Your task to perform on an android device: set an alarm Image 0: 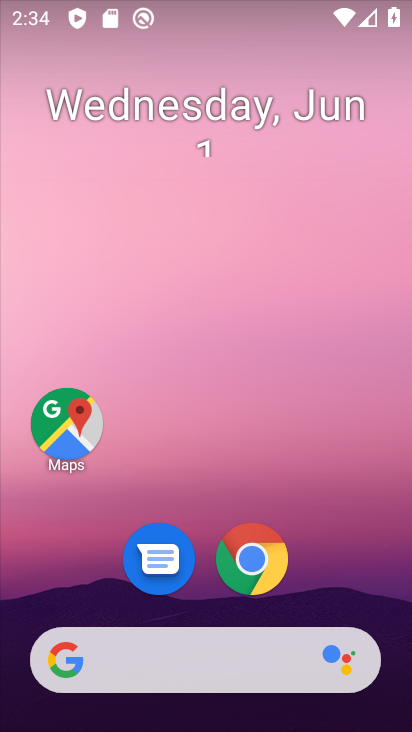
Step 0: drag from (208, 596) to (163, 1)
Your task to perform on an android device: set an alarm Image 1: 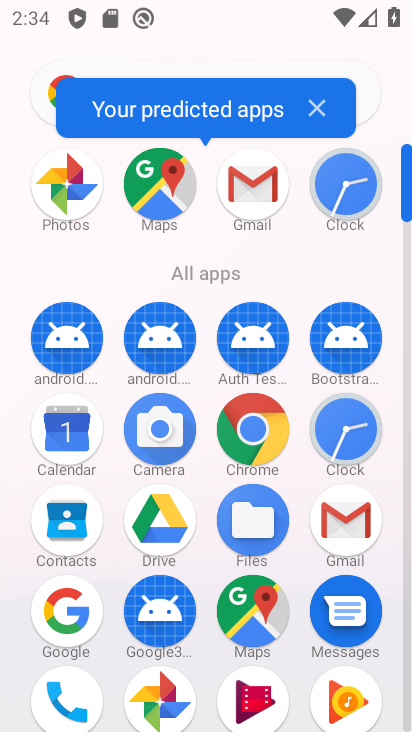
Step 1: drag from (105, 587) to (97, 185)
Your task to perform on an android device: set an alarm Image 2: 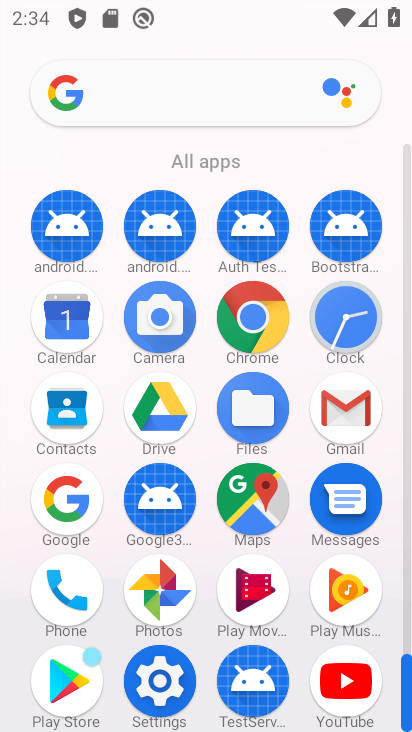
Step 2: click (340, 314)
Your task to perform on an android device: set an alarm Image 3: 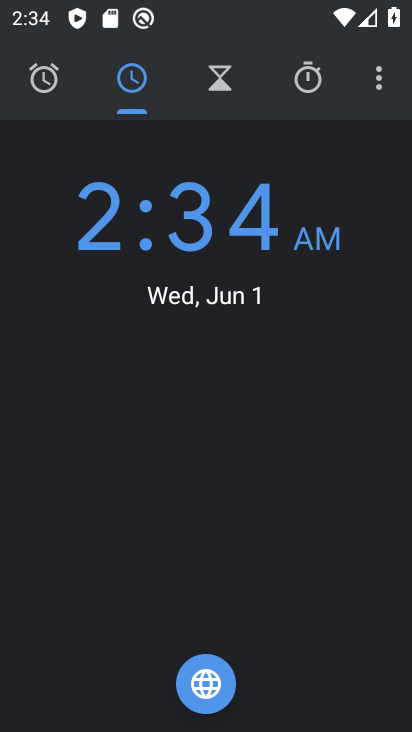
Step 3: click (56, 82)
Your task to perform on an android device: set an alarm Image 4: 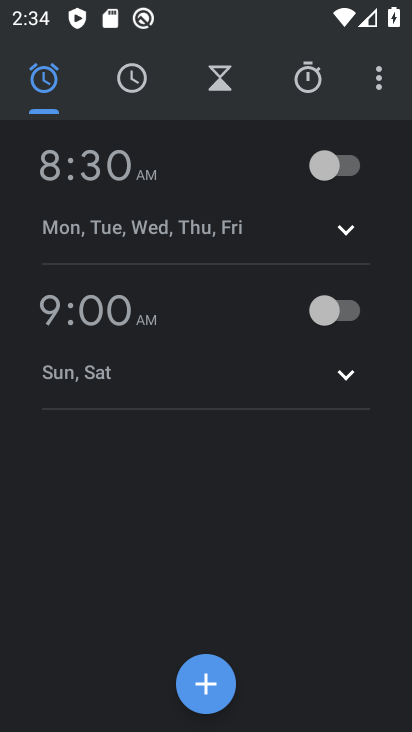
Step 4: click (215, 674)
Your task to perform on an android device: set an alarm Image 5: 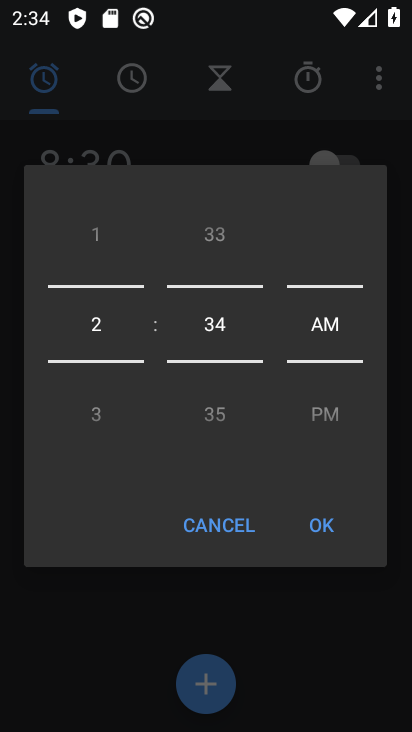
Step 5: click (311, 531)
Your task to perform on an android device: set an alarm Image 6: 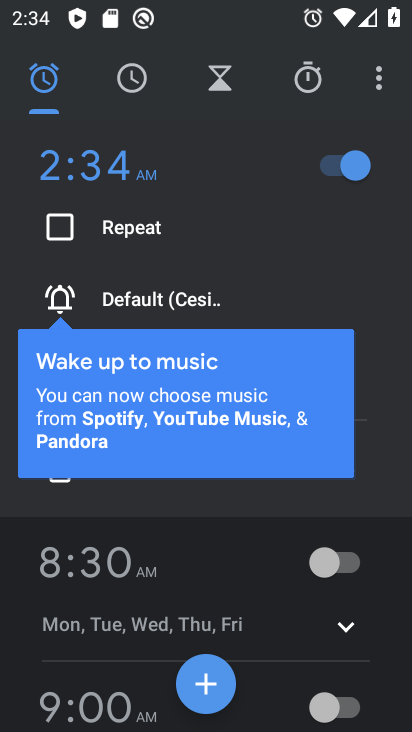
Step 6: task complete